Your task to perform on an android device: set the stopwatch Image 0: 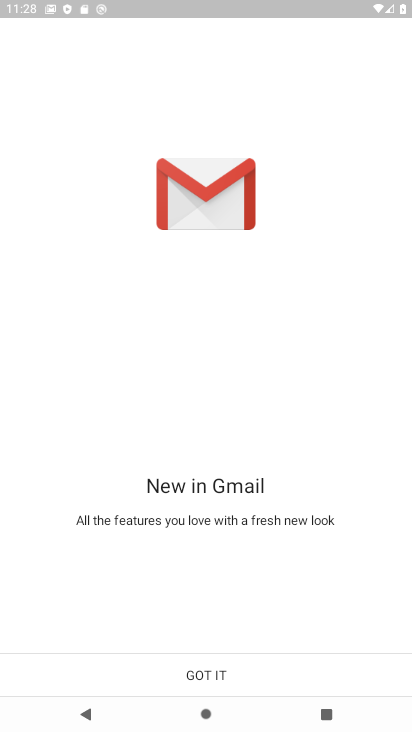
Step 0: press home button
Your task to perform on an android device: set the stopwatch Image 1: 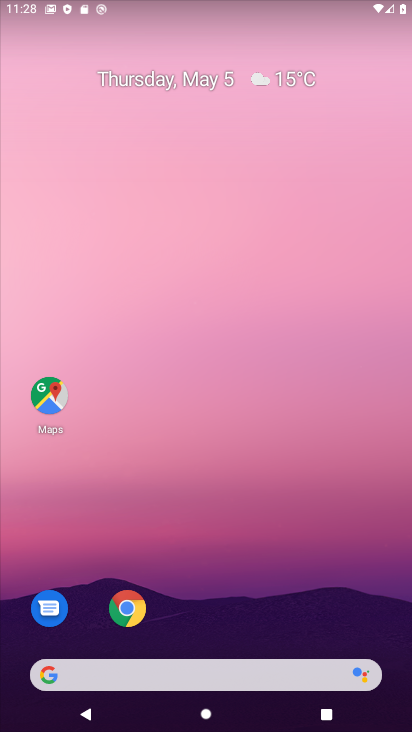
Step 1: drag from (219, 566) to (295, 33)
Your task to perform on an android device: set the stopwatch Image 2: 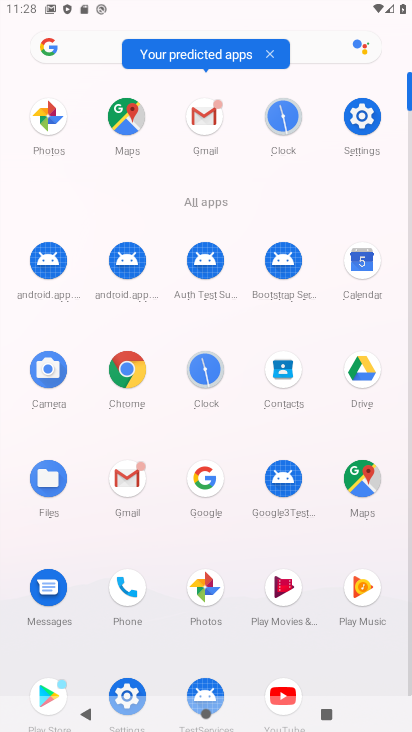
Step 2: click (204, 369)
Your task to perform on an android device: set the stopwatch Image 3: 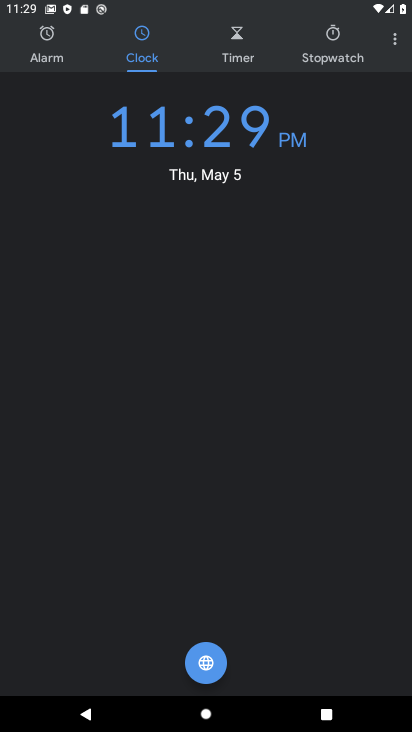
Step 3: click (334, 32)
Your task to perform on an android device: set the stopwatch Image 4: 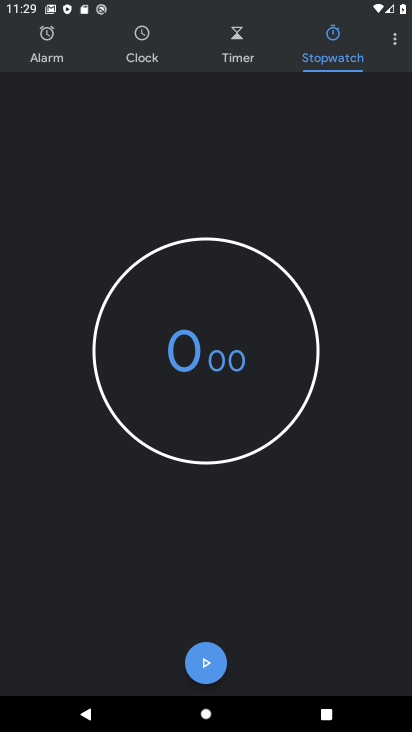
Step 4: click (214, 362)
Your task to perform on an android device: set the stopwatch Image 5: 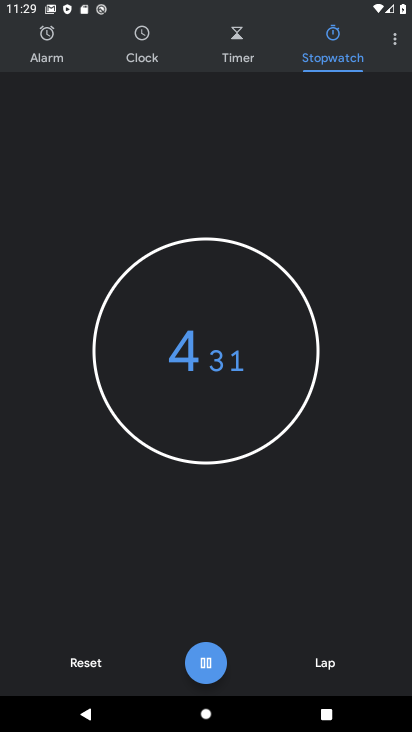
Step 5: click (206, 660)
Your task to perform on an android device: set the stopwatch Image 6: 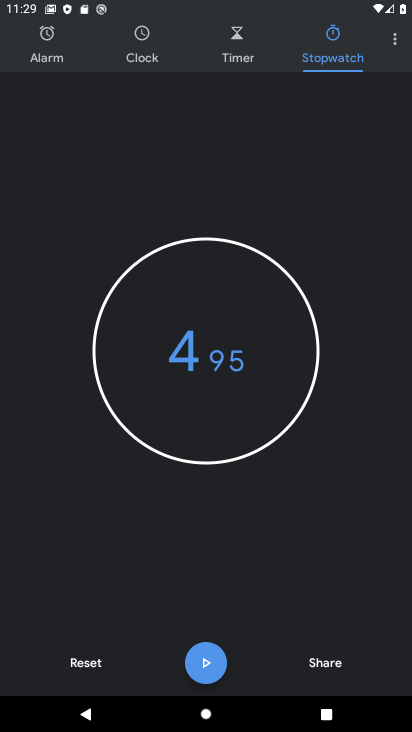
Step 6: task complete